Your task to perform on an android device: Clear all items from cart on costco.com. Add "logitech g pro" to the cart on costco.com, then select checkout. Image 0: 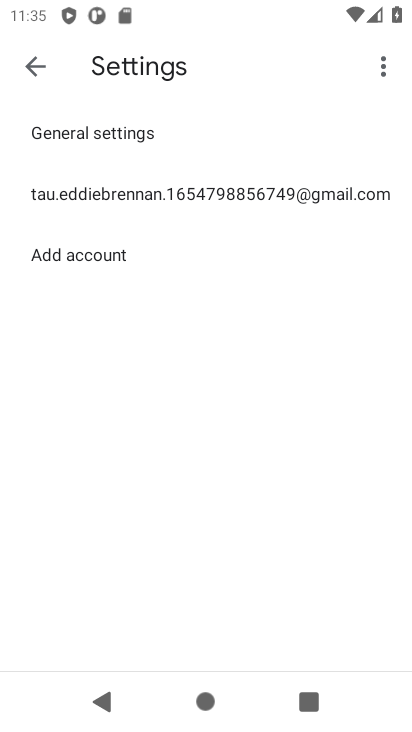
Step 0: press home button
Your task to perform on an android device: Clear all items from cart on costco.com. Add "logitech g pro" to the cart on costco.com, then select checkout. Image 1: 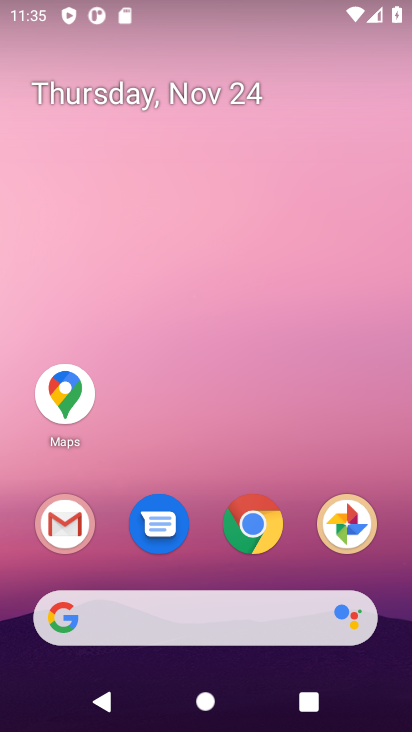
Step 1: click (248, 526)
Your task to perform on an android device: Clear all items from cart on costco.com. Add "logitech g pro" to the cart on costco.com, then select checkout. Image 2: 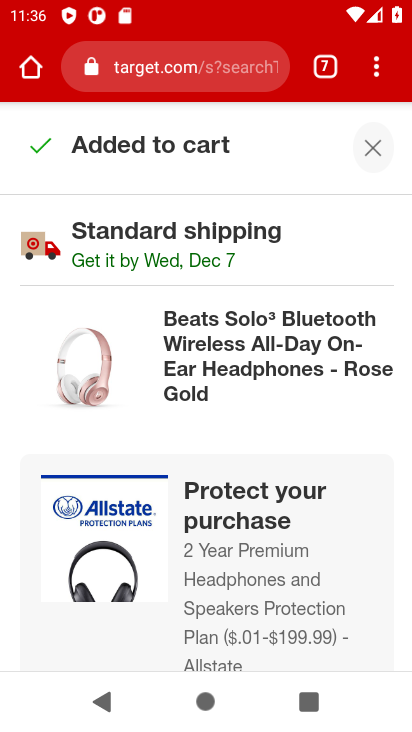
Step 2: click (169, 70)
Your task to perform on an android device: Clear all items from cart on costco.com. Add "logitech g pro" to the cart on costco.com, then select checkout. Image 3: 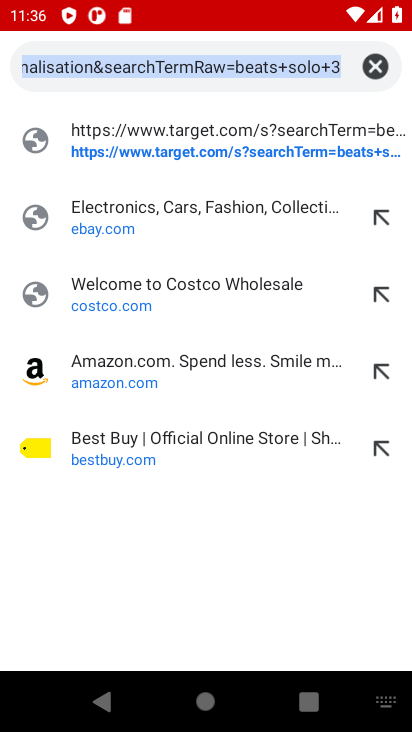
Step 3: click (94, 298)
Your task to perform on an android device: Clear all items from cart on costco.com. Add "logitech g pro" to the cart on costco.com, then select checkout. Image 4: 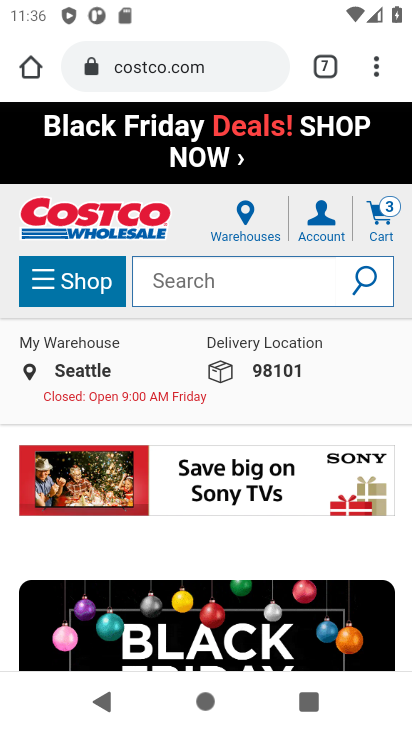
Step 4: click (384, 215)
Your task to perform on an android device: Clear all items from cart on costco.com. Add "logitech g pro" to the cart on costco.com, then select checkout. Image 5: 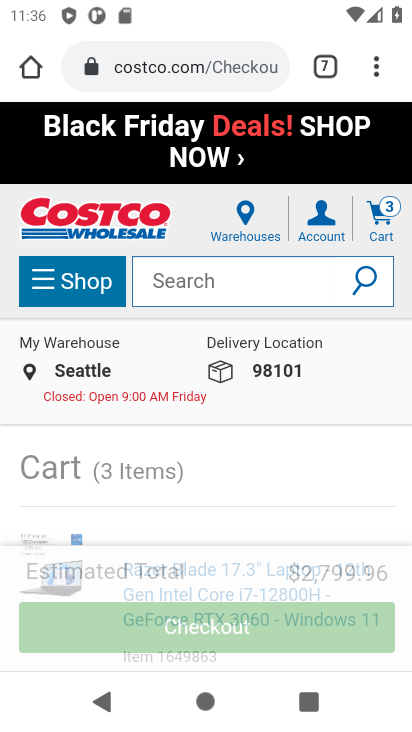
Step 5: drag from (262, 502) to (267, 268)
Your task to perform on an android device: Clear all items from cart on costco.com. Add "logitech g pro" to the cart on costco.com, then select checkout. Image 6: 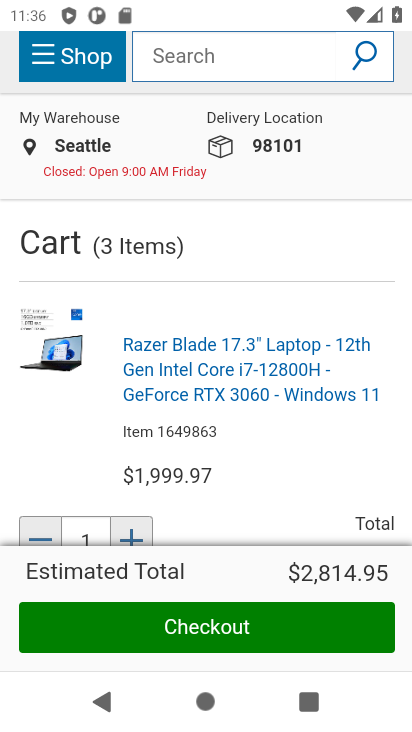
Step 6: drag from (257, 446) to (237, 247)
Your task to perform on an android device: Clear all items from cart on costco.com. Add "logitech g pro" to the cart on costco.com, then select checkout. Image 7: 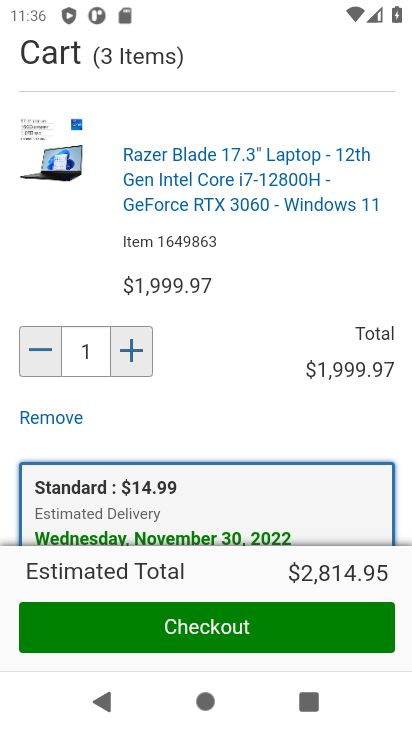
Step 7: drag from (222, 396) to (212, 164)
Your task to perform on an android device: Clear all items from cart on costco.com. Add "logitech g pro" to the cart on costco.com, then select checkout. Image 8: 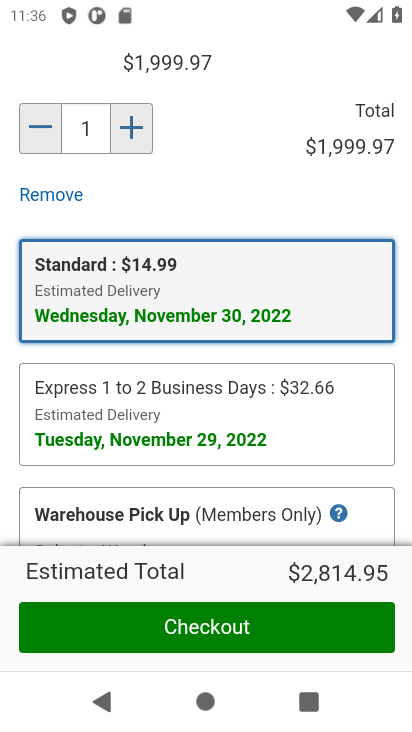
Step 8: drag from (207, 414) to (209, 188)
Your task to perform on an android device: Clear all items from cart on costco.com. Add "logitech g pro" to the cart on costco.com, then select checkout. Image 9: 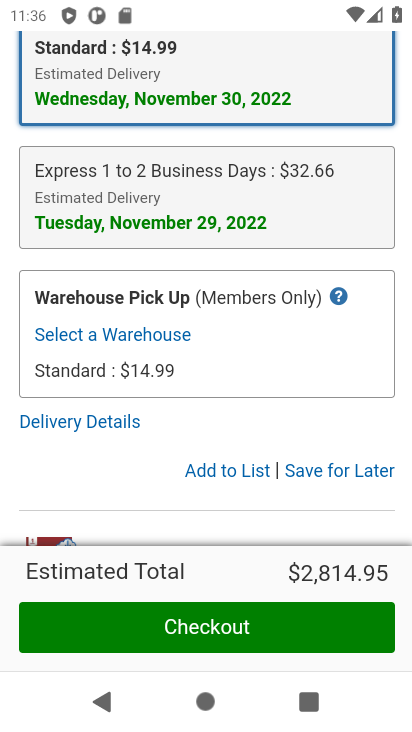
Step 9: click (347, 468)
Your task to perform on an android device: Clear all items from cart on costco.com. Add "logitech g pro" to the cart on costco.com, then select checkout. Image 10: 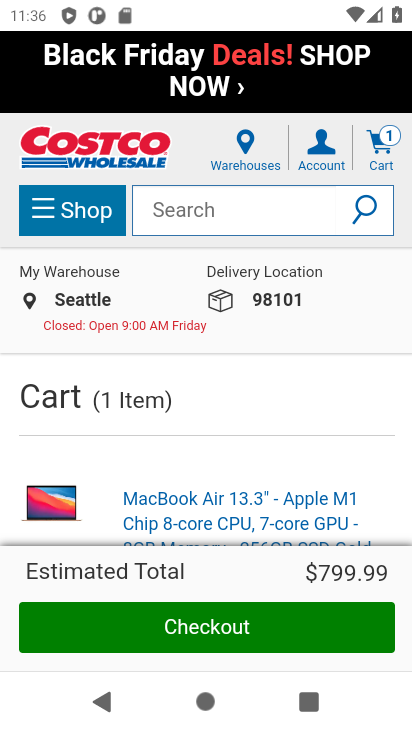
Step 10: drag from (234, 508) to (213, 244)
Your task to perform on an android device: Clear all items from cart on costco.com. Add "logitech g pro" to the cart on costco.com, then select checkout. Image 11: 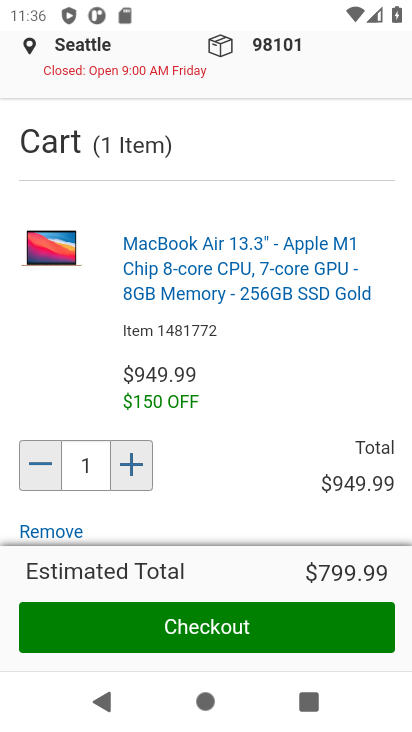
Step 11: drag from (221, 434) to (221, 191)
Your task to perform on an android device: Clear all items from cart on costco.com. Add "logitech g pro" to the cart on costco.com, then select checkout. Image 12: 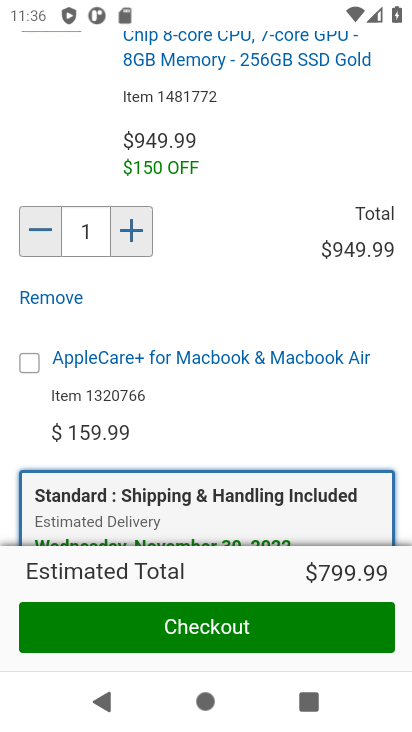
Step 12: drag from (220, 404) to (212, 264)
Your task to perform on an android device: Clear all items from cart on costco.com. Add "logitech g pro" to the cart on costco.com, then select checkout. Image 13: 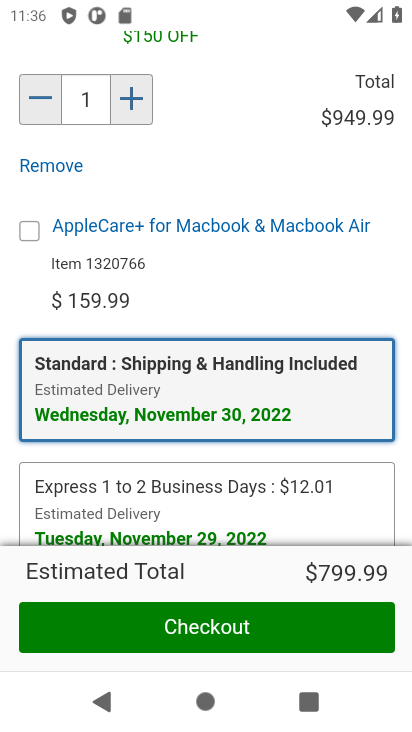
Step 13: drag from (217, 400) to (217, 191)
Your task to perform on an android device: Clear all items from cart on costco.com. Add "logitech g pro" to the cart on costco.com, then select checkout. Image 14: 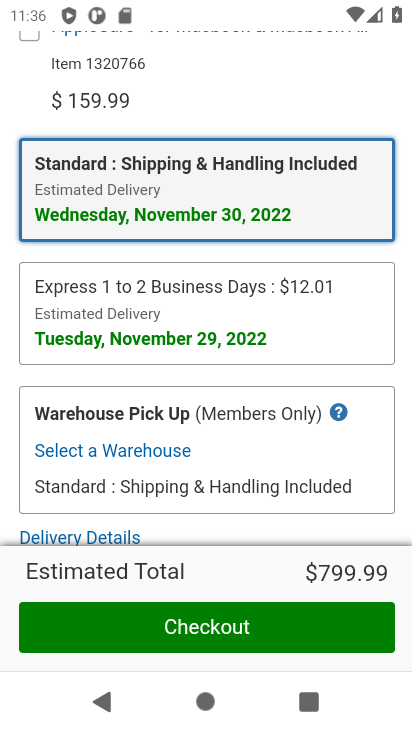
Step 14: drag from (322, 443) to (315, 159)
Your task to perform on an android device: Clear all items from cart on costco.com. Add "logitech g pro" to the cart on costco.com, then select checkout. Image 15: 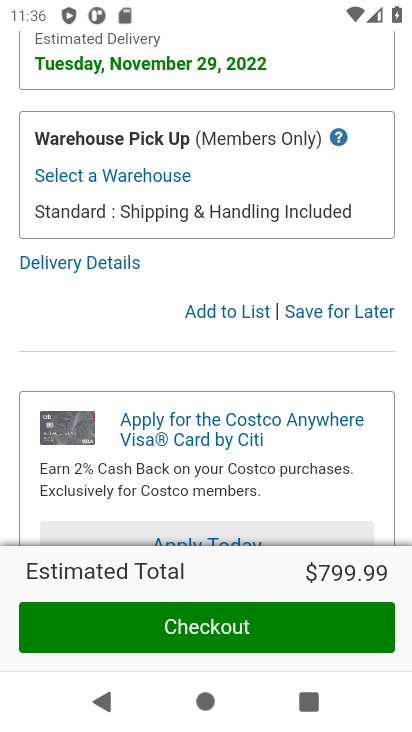
Step 15: click (342, 311)
Your task to perform on an android device: Clear all items from cart on costco.com. Add "logitech g pro" to the cart on costco.com, then select checkout. Image 16: 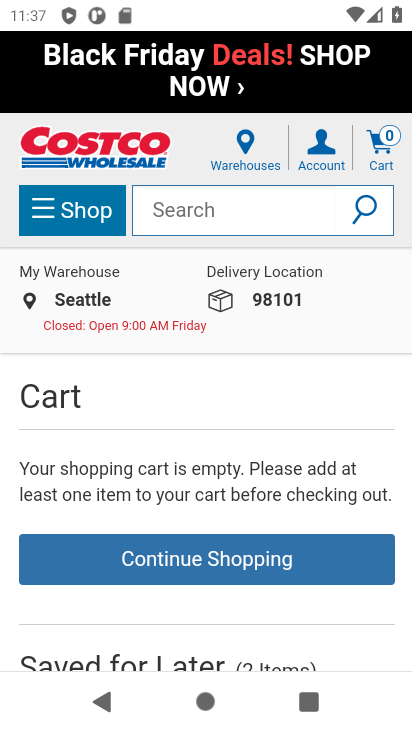
Step 16: click (178, 219)
Your task to perform on an android device: Clear all items from cart on costco.com. Add "logitech g pro" to the cart on costco.com, then select checkout. Image 17: 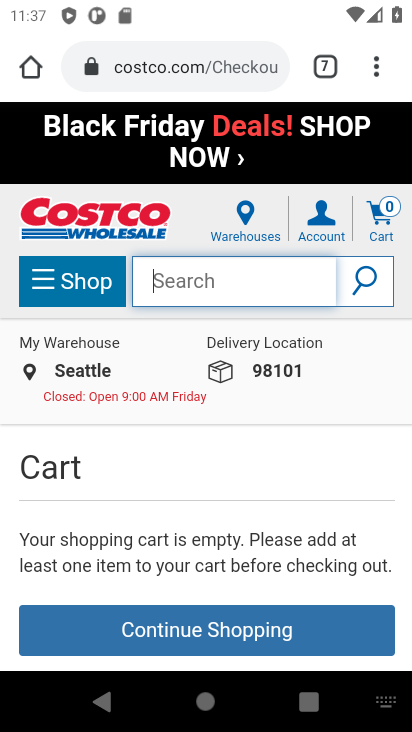
Step 17: type "logitech g pro"
Your task to perform on an android device: Clear all items from cart on costco.com. Add "logitech g pro" to the cart on costco.com, then select checkout. Image 18: 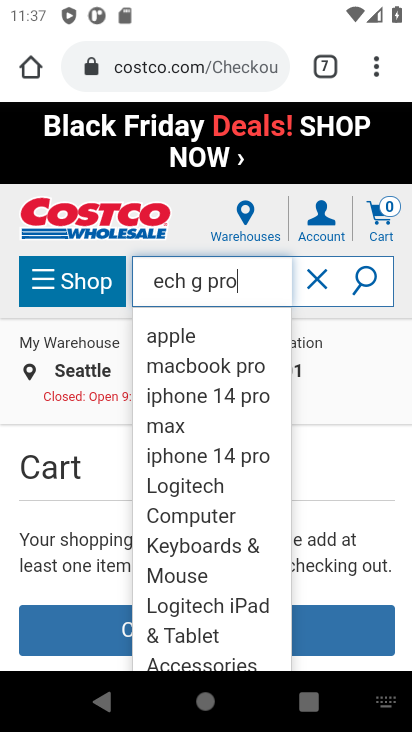
Step 18: click (363, 278)
Your task to perform on an android device: Clear all items from cart on costco.com. Add "logitech g pro" to the cart on costco.com, then select checkout. Image 19: 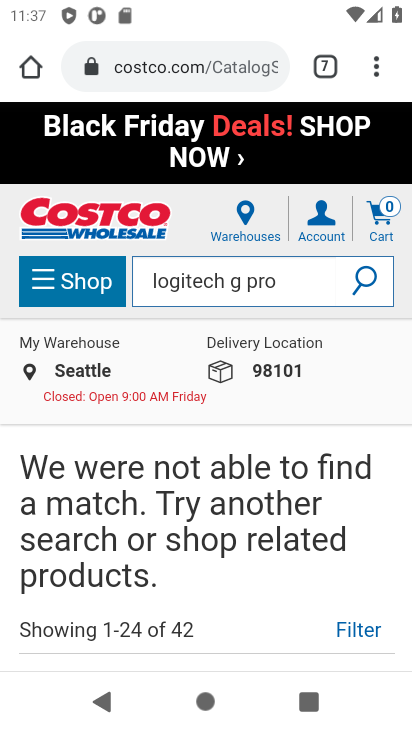
Step 19: task complete